Your task to perform on an android device: turn on data saver in the chrome app Image 0: 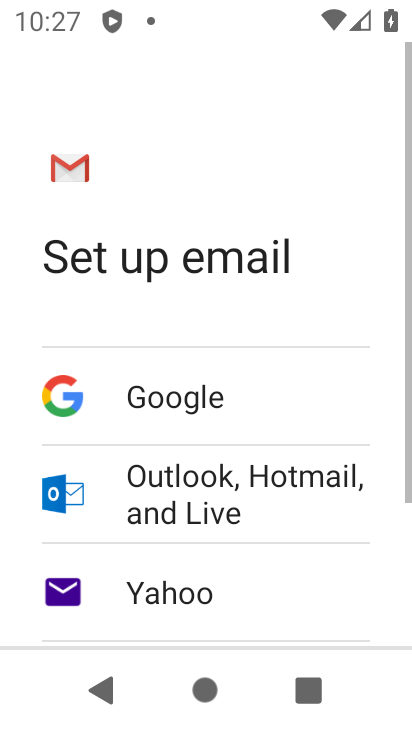
Step 0: press home button
Your task to perform on an android device: turn on data saver in the chrome app Image 1: 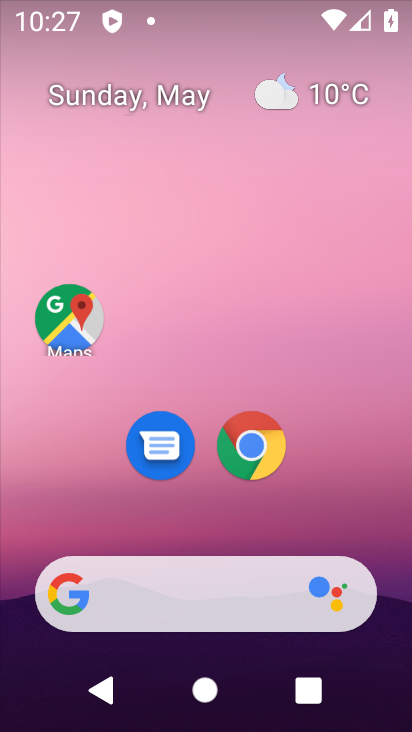
Step 1: click (254, 453)
Your task to perform on an android device: turn on data saver in the chrome app Image 2: 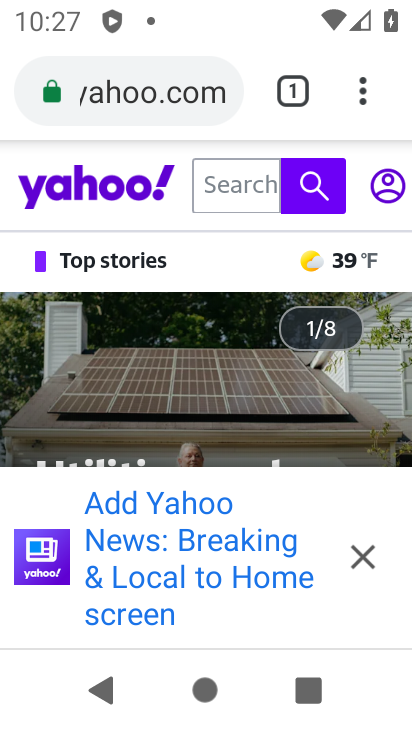
Step 2: click (370, 545)
Your task to perform on an android device: turn on data saver in the chrome app Image 3: 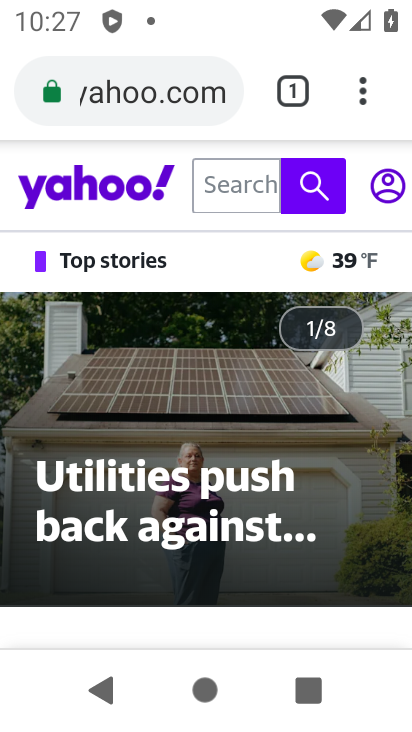
Step 3: click (366, 99)
Your task to perform on an android device: turn on data saver in the chrome app Image 4: 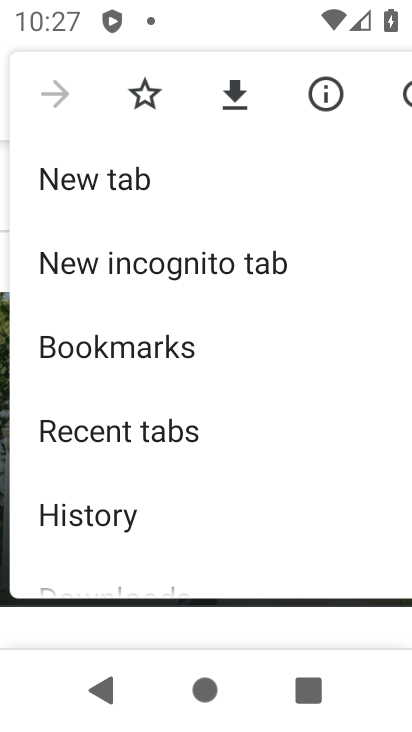
Step 4: drag from (140, 505) to (152, 215)
Your task to perform on an android device: turn on data saver in the chrome app Image 5: 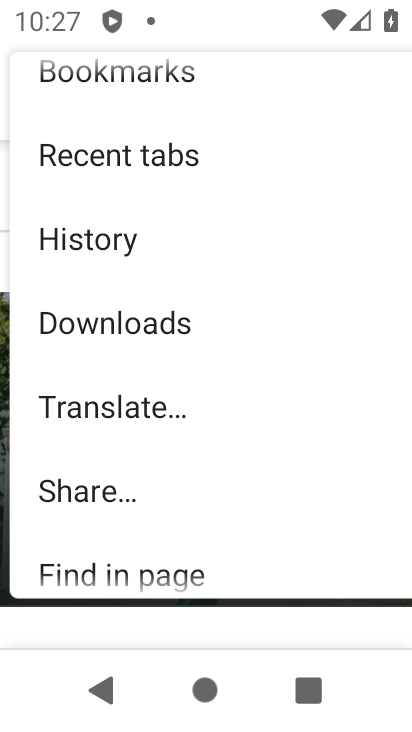
Step 5: drag from (152, 508) to (176, 347)
Your task to perform on an android device: turn on data saver in the chrome app Image 6: 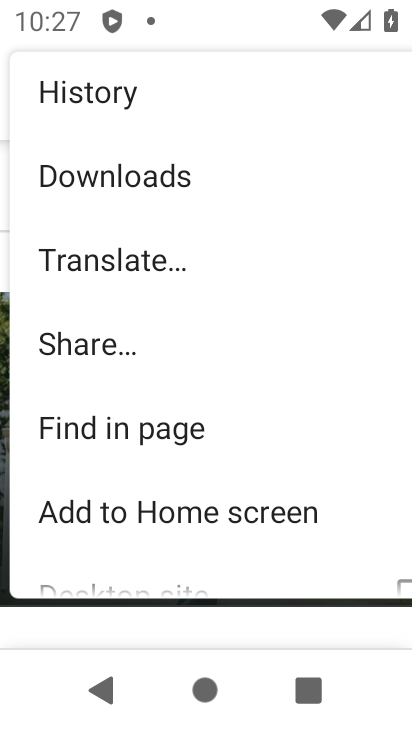
Step 6: drag from (135, 510) to (178, 147)
Your task to perform on an android device: turn on data saver in the chrome app Image 7: 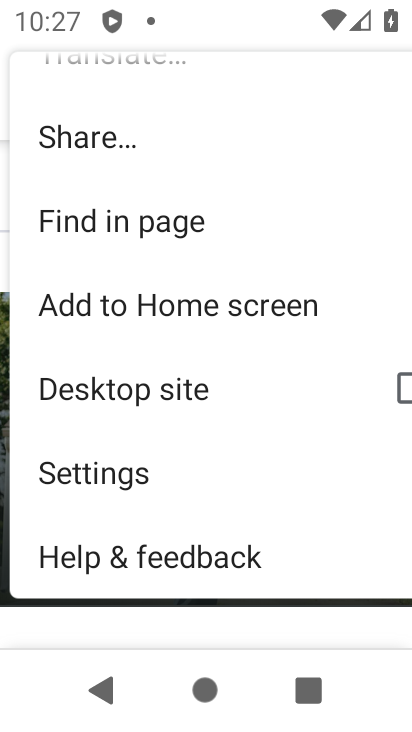
Step 7: click (118, 484)
Your task to perform on an android device: turn on data saver in the chrome app Image 8: 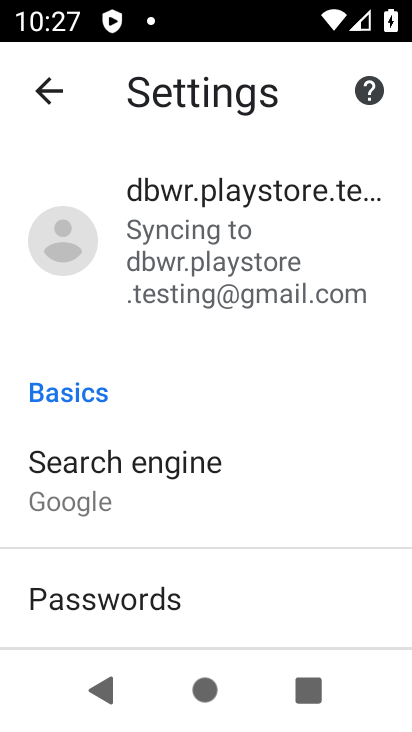
Step 8: drag from (148, 518) to (182, 221)
Your task to perform on an android device: turn on data saver in the chrome app Image 9: 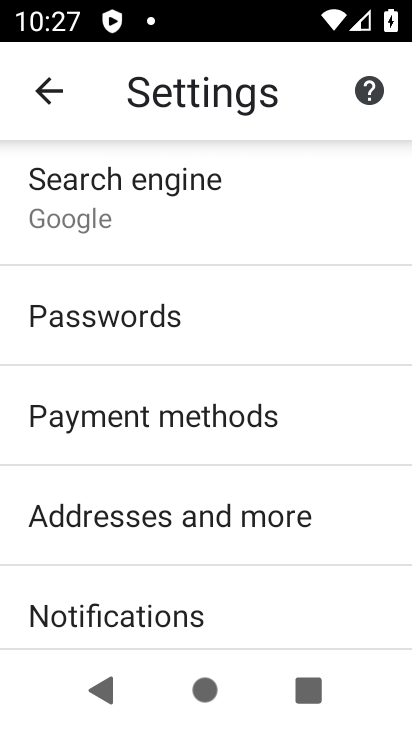
Step 9: drag from (156, 555) to (185, 237)
Your task to perform on an android device: turn on data saver in the chrome app Image 10: 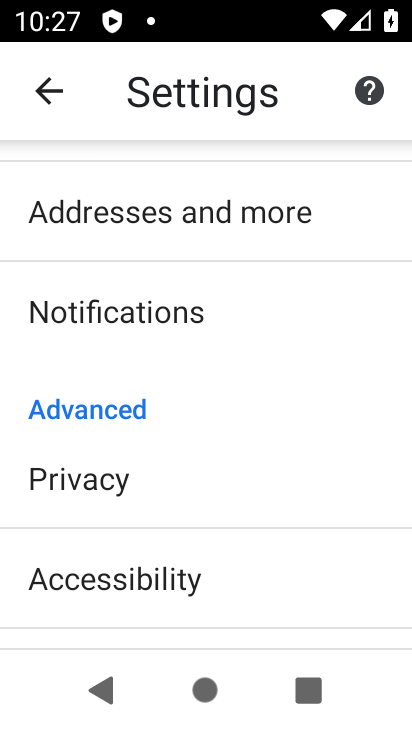
Step 10: drag from (140, 522) to (195, 210)
Your task to perform on an android device: turn on data saver in the chrome app Image 11: 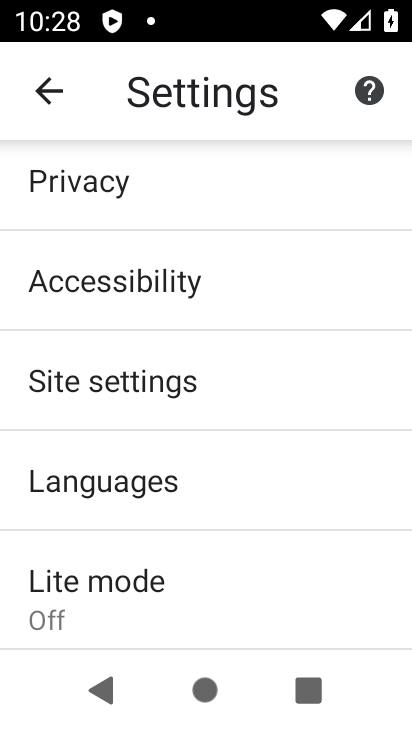
Step 11: click (118, 595)
Your task to perform on an android device: turn on data saver in the chrome app Image 12: 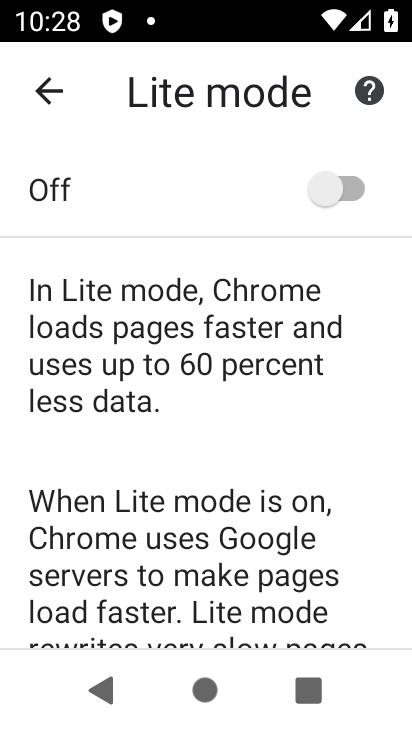
Step 12: click (340, 183)
Your task to perform on an android device: turn on data saver in the chrome app Image 13: 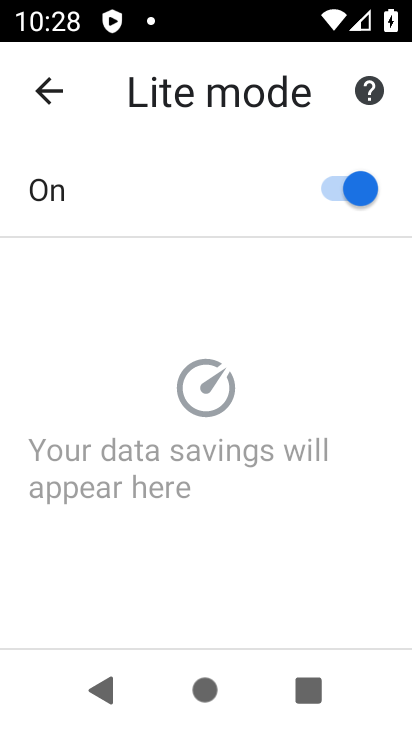
Step 13: task complete